Your task to perform on an android device: Open the map Image 0: 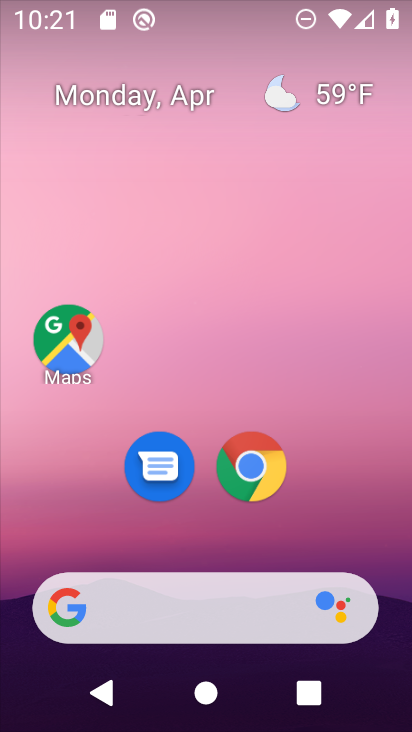
Step 0: click (74, 331)
Your task to perform on an android device: Open the map Image 1: 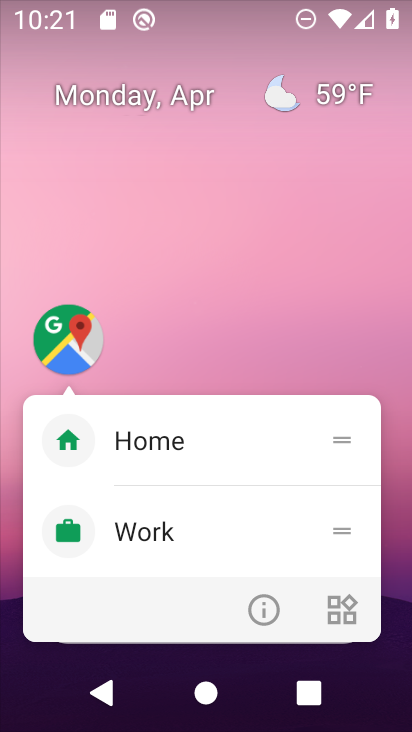
Step 1: click (61, 320)
Your task to perform on an android device: Open the map Image 2: 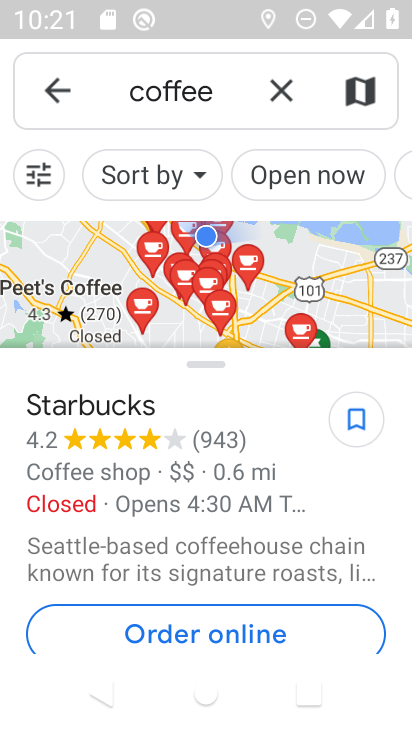
Step 2: task complete